Your task to perform on an android device: open a bookmark in the chrome app Image 0: 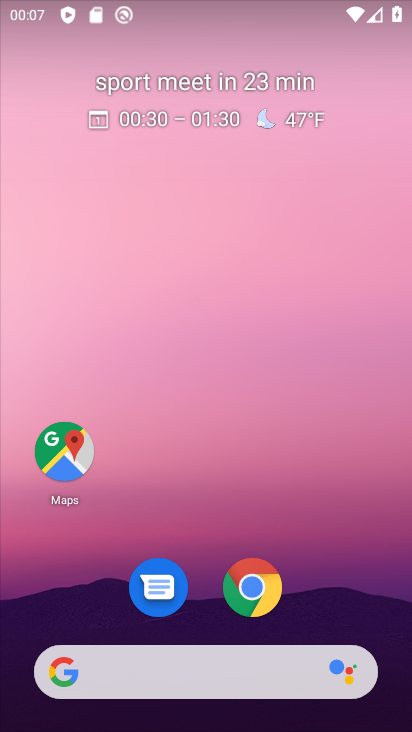
Step 0: drag from (399, 683) to (343, 295)
Your task to perform on an android device: open a bookmark in the chrome app Image 1: 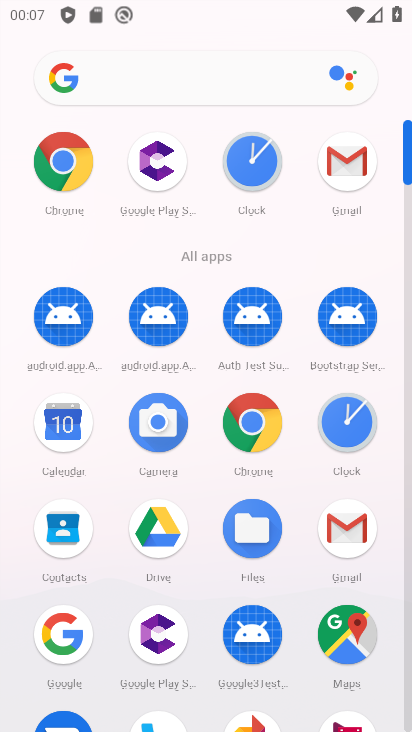
Step 1: click (247, 412)
Your task to perform on an android device: open a bookmark in the chrome app Image 2: 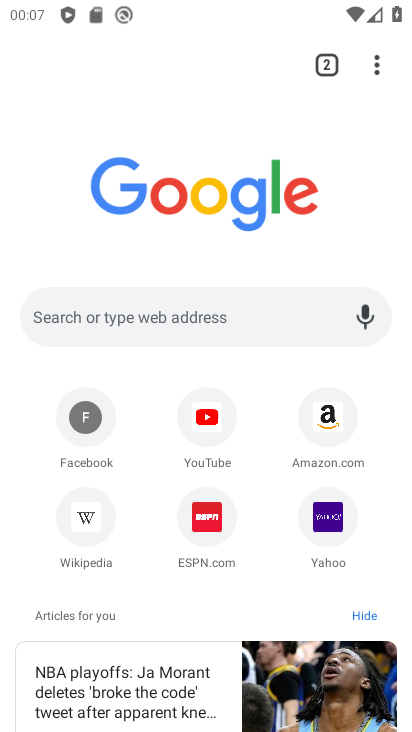
Step 2: click (375, 66)
Your task to perform on an android device: open a bookmark in the chrome app Image 3: 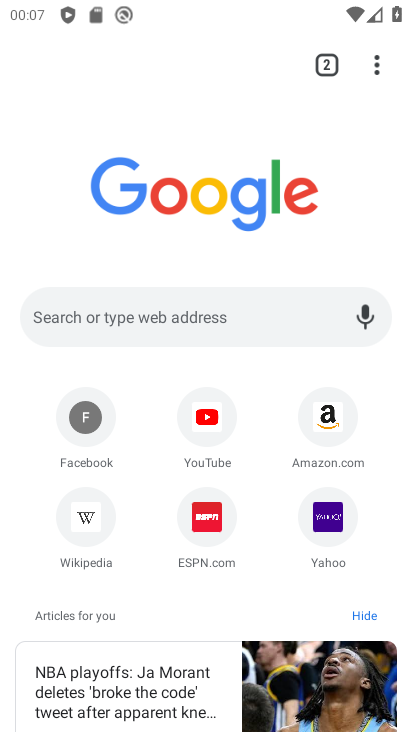
Step 3: click (379, 61)
Your task to perform on an android device: open a bookmark in the chrome app Image 4: 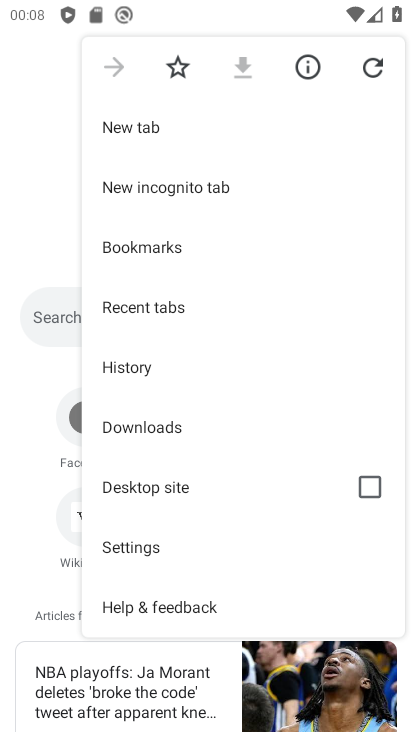
Step 4: click (168, 245)
Your task to perform on an android device: open a bookmark in the chrome app Image 5: 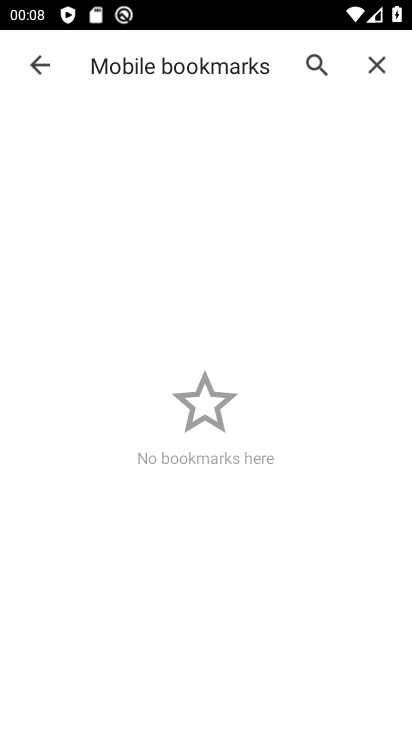
Step 5: task complete